Your task to perform on an android device: Empty the shopping cart on target. Add "usb-a to usb-b" to the cart on target Image 0: 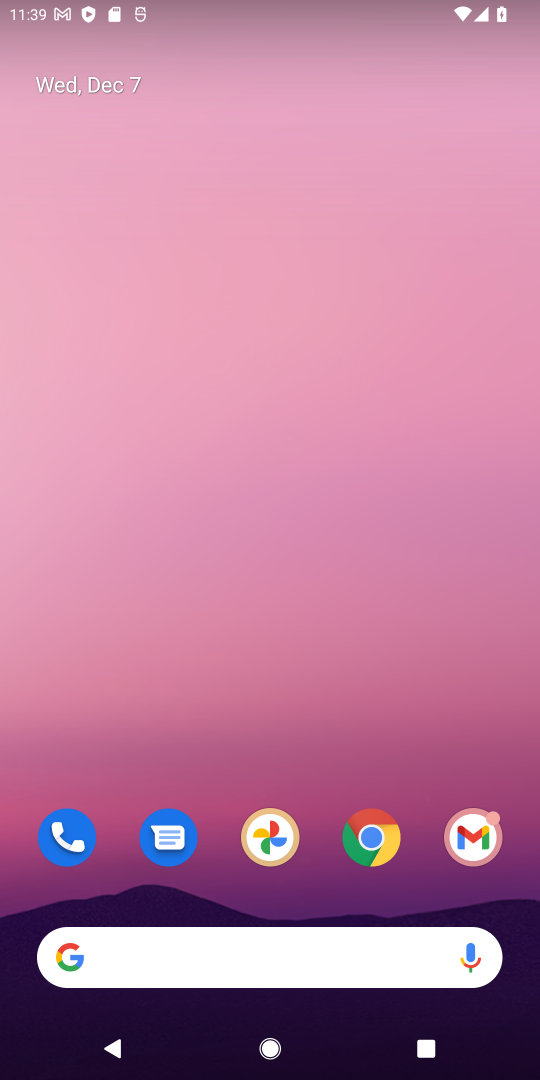
Step 0: click (371, 831)
Your task to perform on an android device: Empty the shopping cart on target. Add "usb-a to usb-b" to the cart on target Image 1: 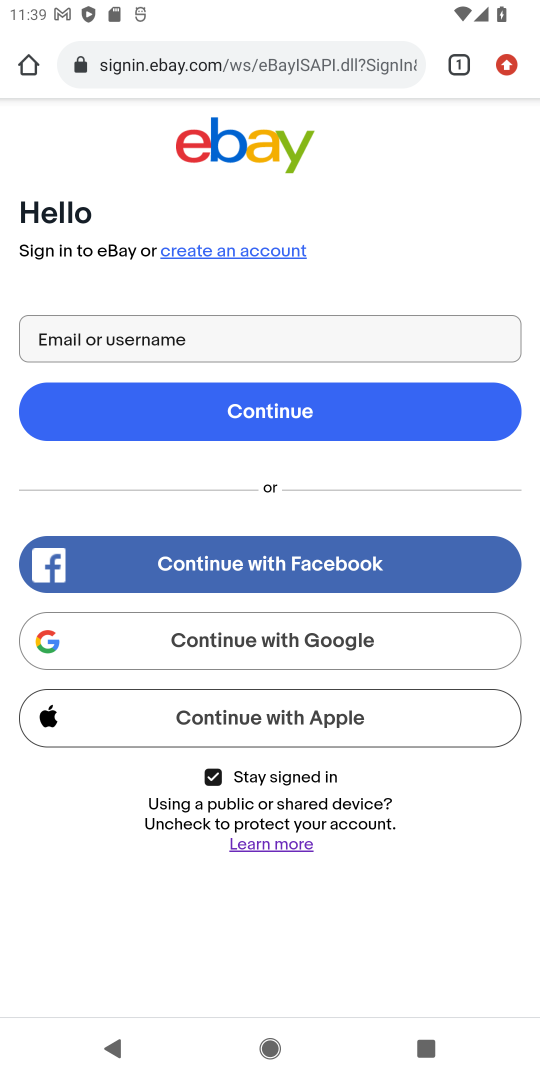
Step 1: click (373, 64)
Your task to perform on an android device: Empty the shopping cart on target. Add "usb-a to usb-b" to the cart on target Image 2: 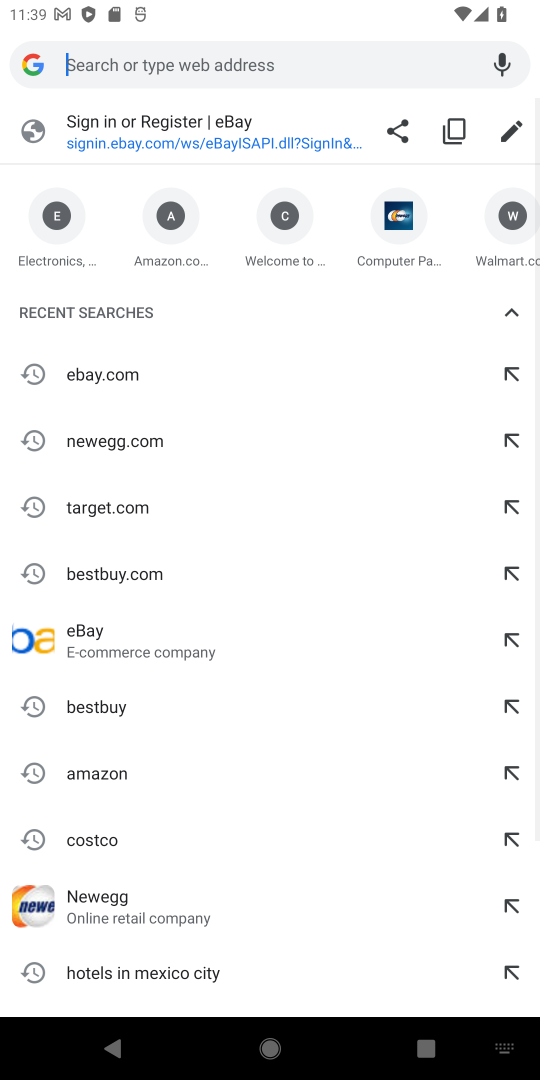
Step 2: click (114, 501)
Your task to perform on an android device: Empty the shopping cart on target. Add "usb-a to usb-b" to the cart on target Image 3: 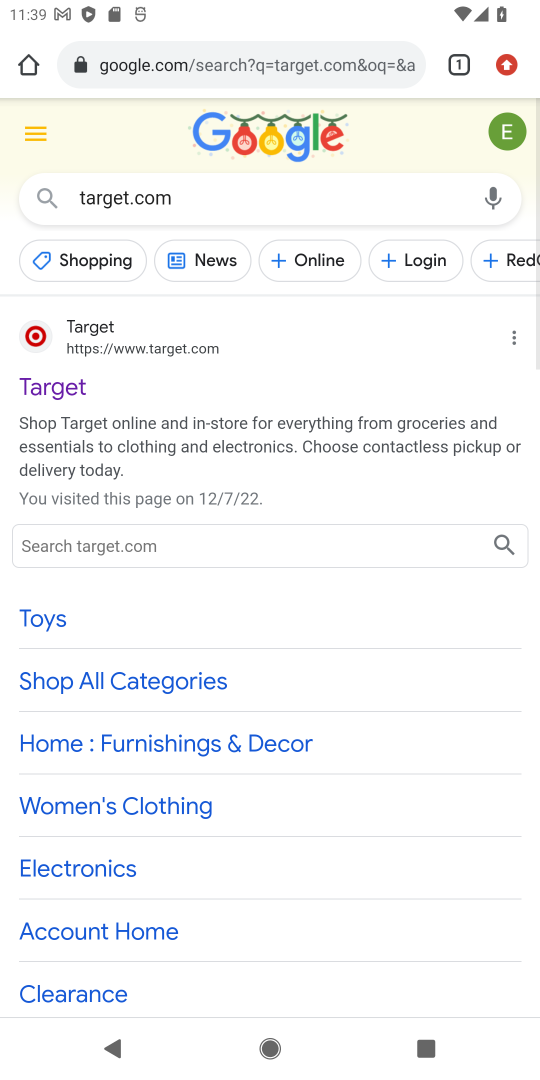
Step 3: click (164, 349)
Your task to perform on an android device: Empty the shopping cart on target. Add "usb-a to usb-b" to the cart on target Image 4: 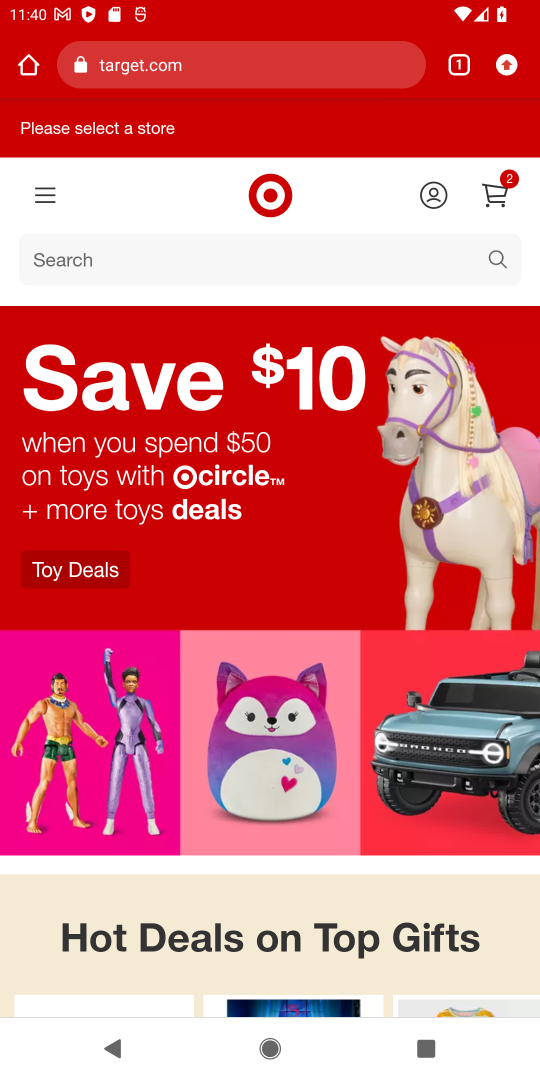
Step 4: click (494, 202)
Your task to perform on an android device: Empty the shopping cart on target. Add "usb-a to usb-b" to the cart on target Image 5: 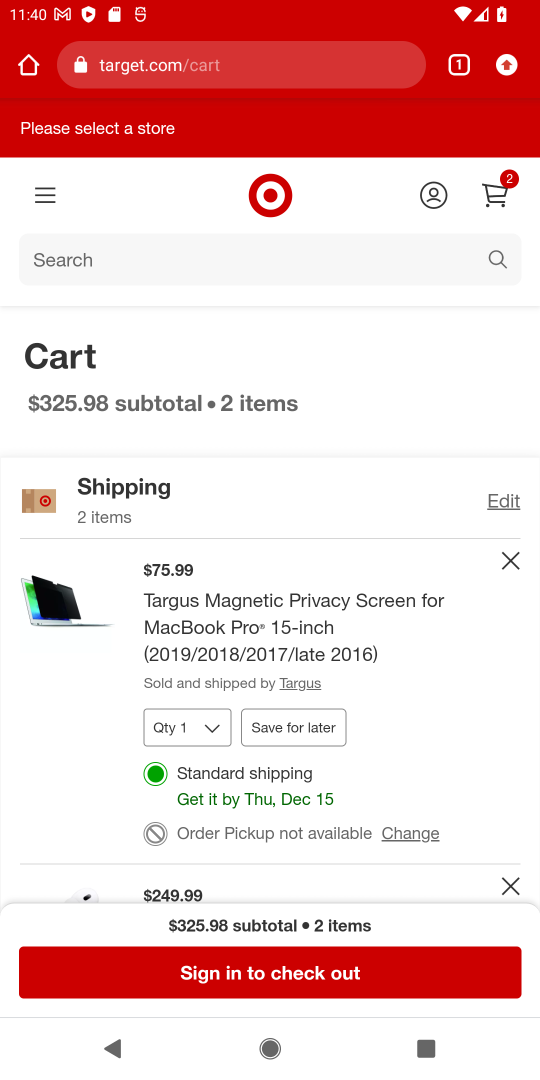
Step 5: click (514, 565)
Your task to perform on an android device: Empty the shopping cart on target. Add "usb-a to usb-b" to the cart on target Image 6: 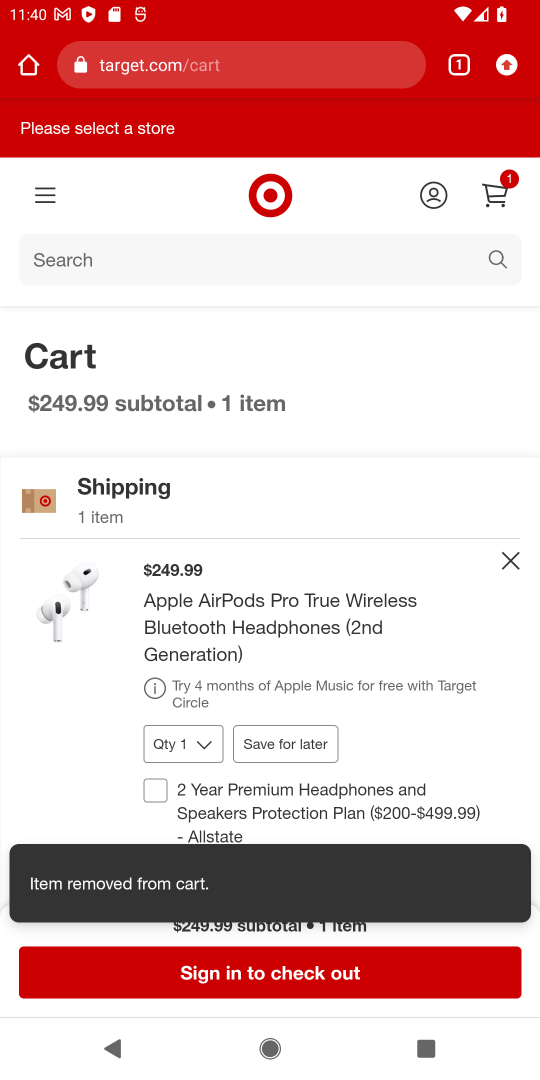
Step 6: click (514, 565)
Your task to perform on an android device: Empty the shopping cart on target. Add "usb-a to usb-b" to the cart on target Image 7: 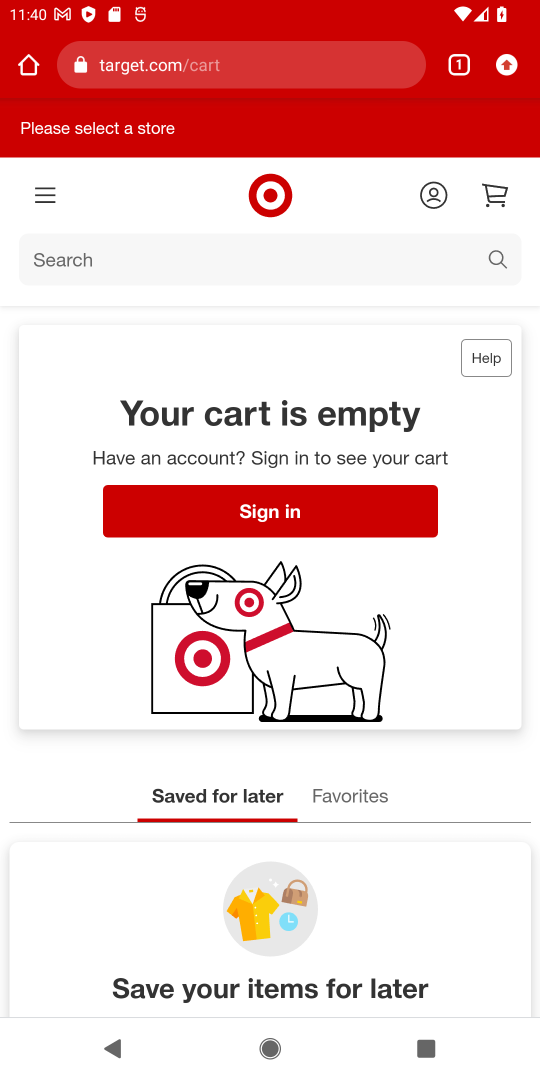
Step 7: click (496, 255)
Your task to perform on an android device: Empty the shopping cart on target. Add "usb-a to usb-b" to the cart on target Image 8: 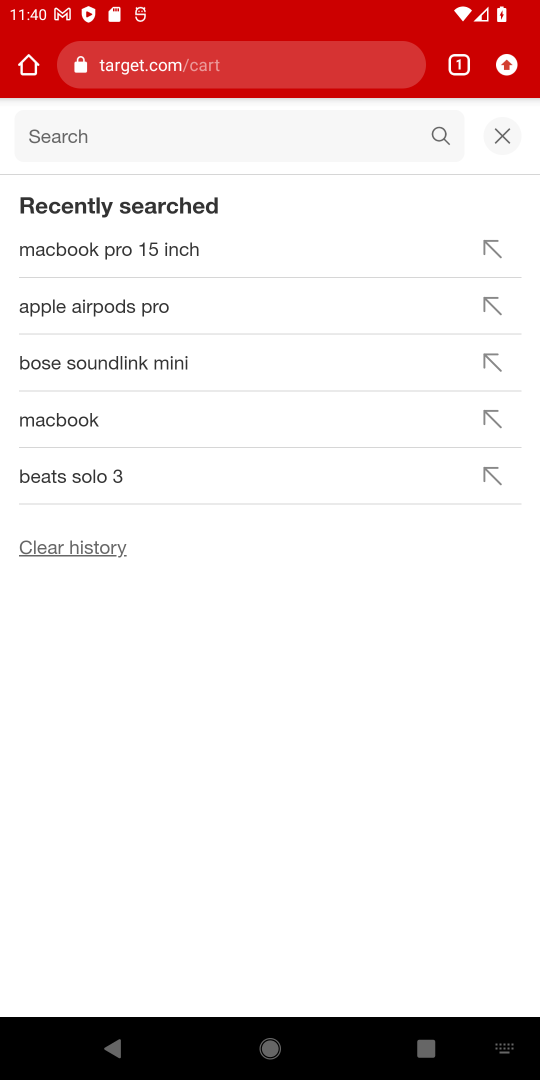
Step 8: type "usb-a to usb-b"
Your task to perform on an android device: Empty the shopping cart on target. Add "usb-a to usb-b" to the cart on target Image 9: 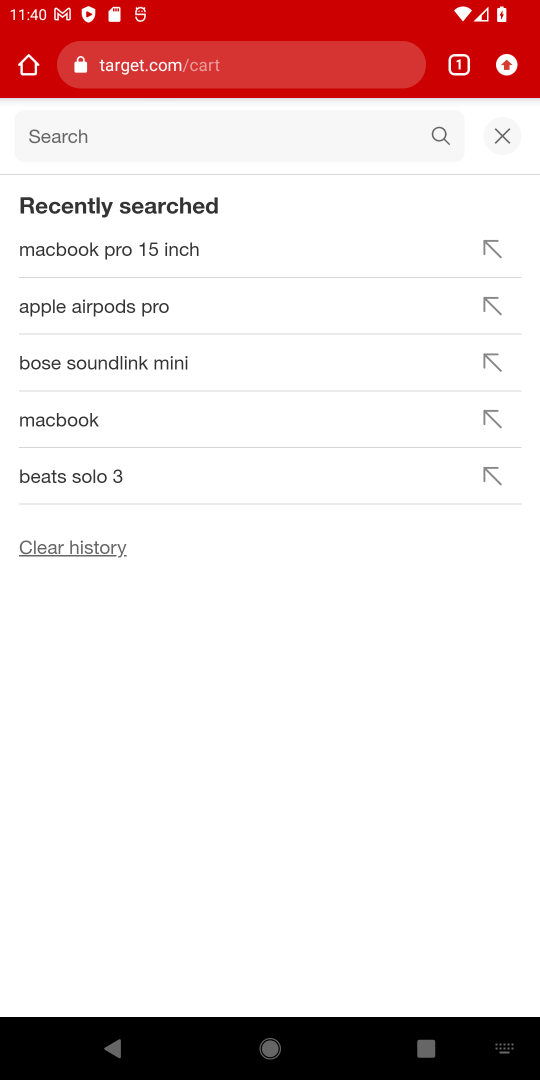
Step 9: press enter
Your task to perform on an android device: Empty the shopping cart on target. Add "usb-a to usb-b" to the cart on target Image 10: 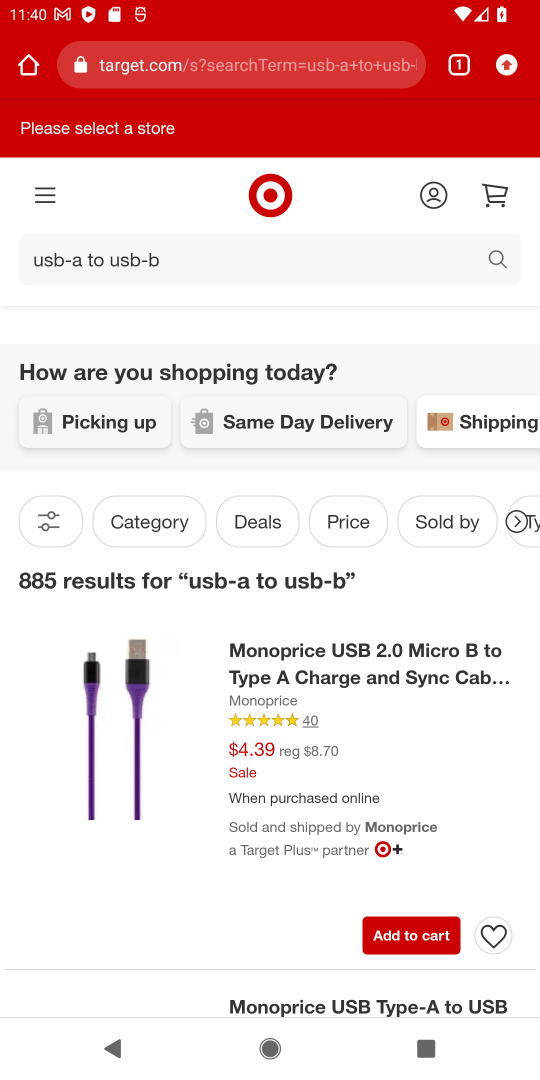
Step 10: drag from (411, 759) to (457, 282)
Your task to perform on an android device: Empty the shopping cart on target. Add "usb-a to usb-b" to the cart on target Image 11: 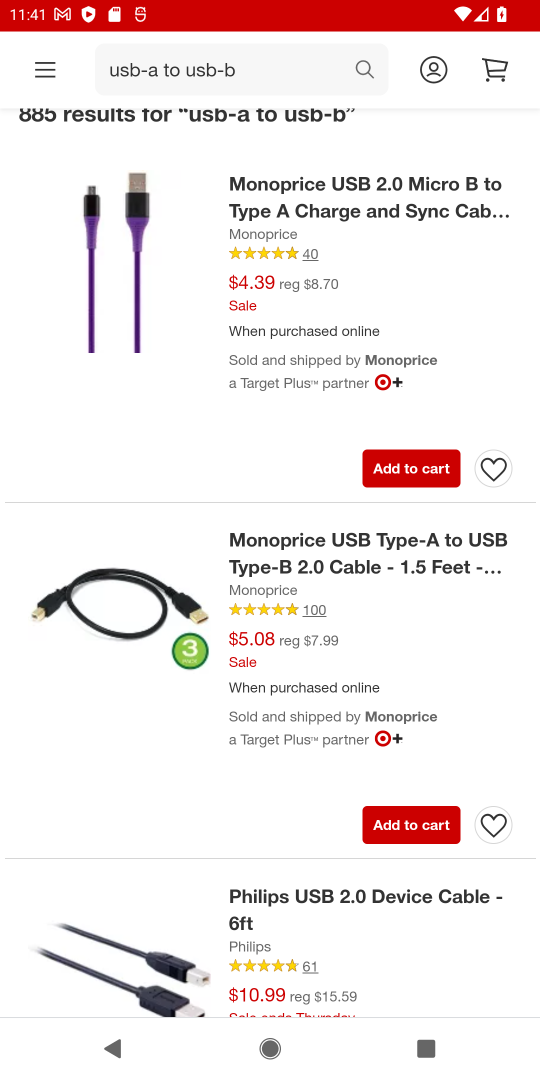
Step 11: click (151, 576)
Your task to perform on an android device: Empty the shopping cart on target. Add "usb-a to usb-b" to the cart on target Image 12: 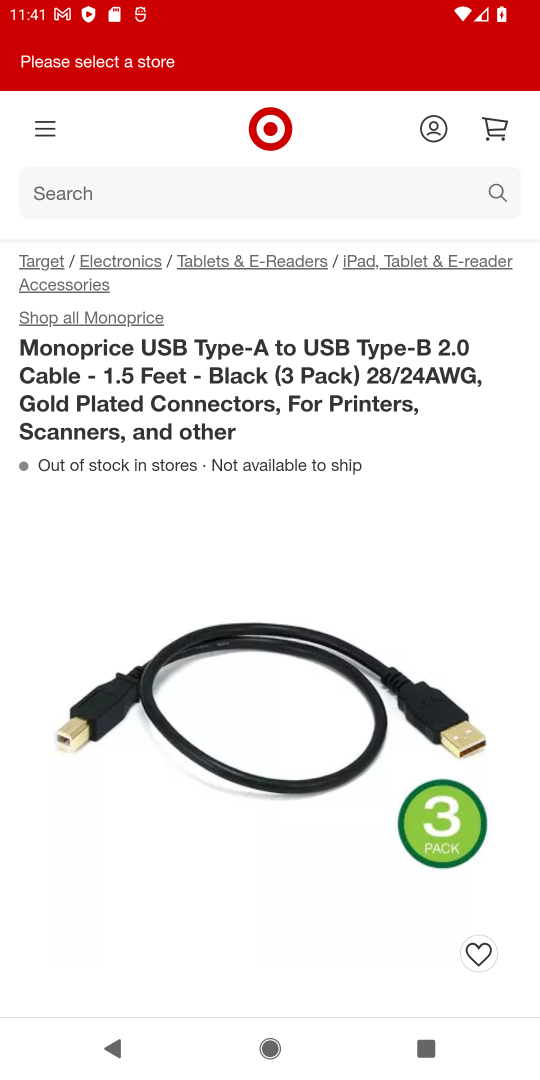
Step 12: drag from (302, 737) to (303, 271)
Your task to perform on an android device: Empty the shopping cart on target. Add "usb-a to usb-b" to the cart on target Image 13: 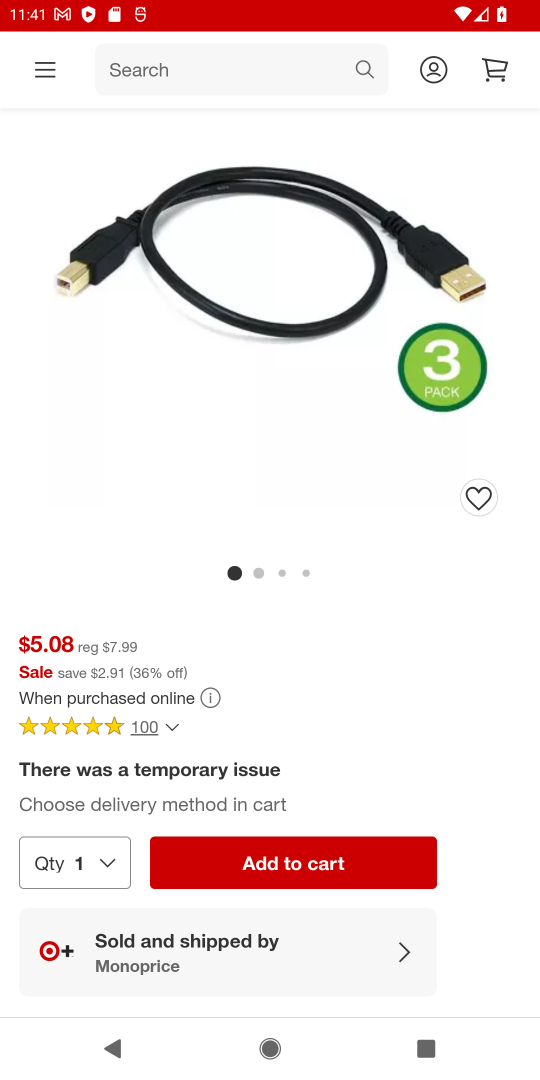
Step 13: click (314, 858)
Your task to perform on an android device: Empty the shopping cart on target. Add "usb-a to usb-b" to the cart on target Image 14: 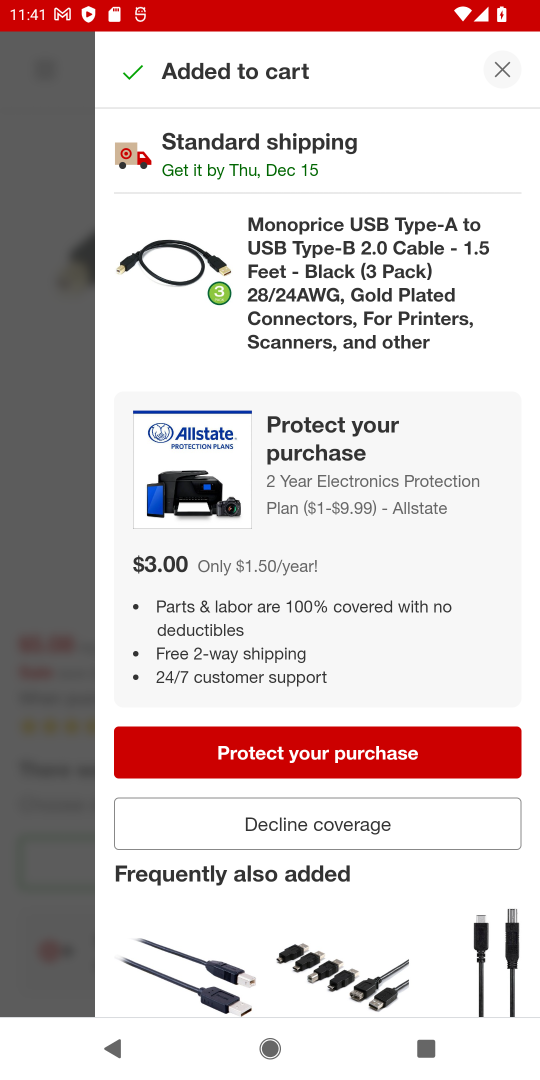
Step 14: click (507, 69)
Your task to perform on an android device: Empty the shopping cart on target. Add "usb-a to usb-b" to the cart on target Image 15: 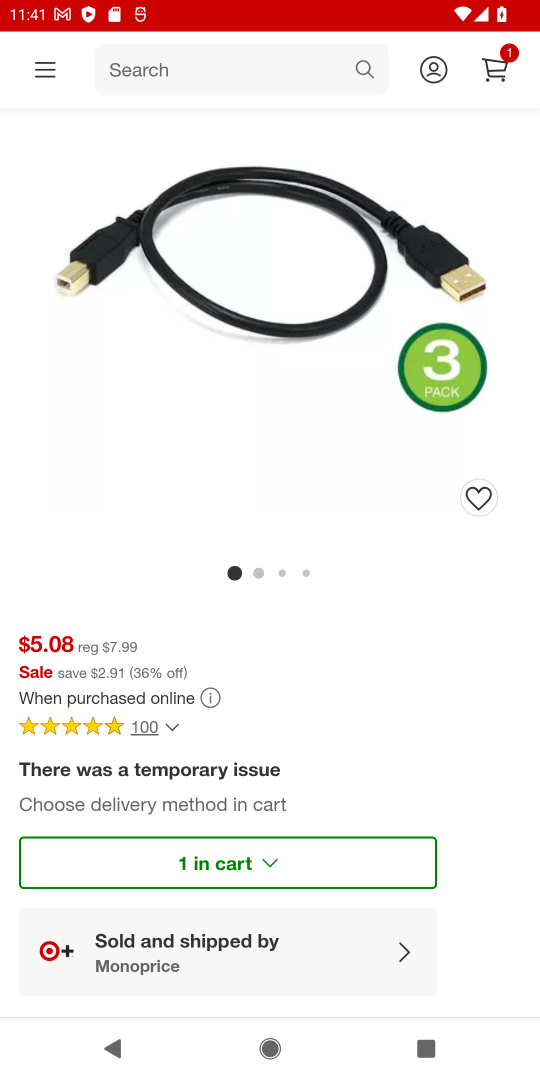
Step 15: click (507, 69)
Your task to perform on an android device: Empty the shopping cart on target. Add "usb-a to usb-b" to the cart on target Image 16: 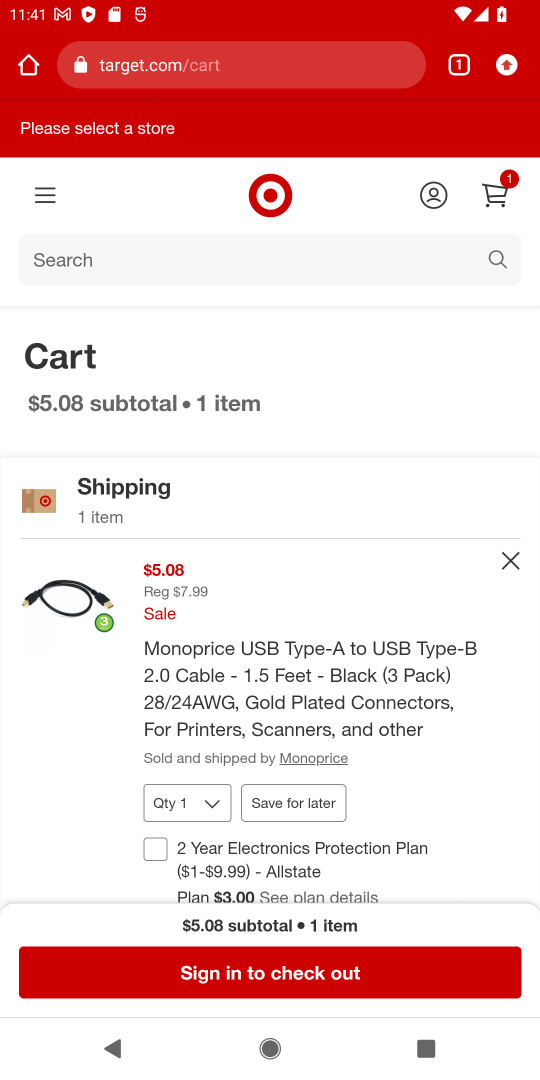
Step 16: task complete